Your task to perform on an android device: star an email in the gmail app Image 0: 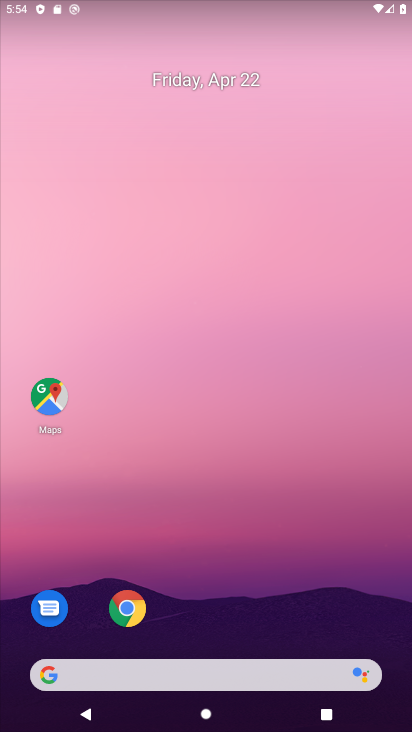
Step 0: click (126, 622)
Your task to perform on an android device: star an email in the gmail app Image 1: 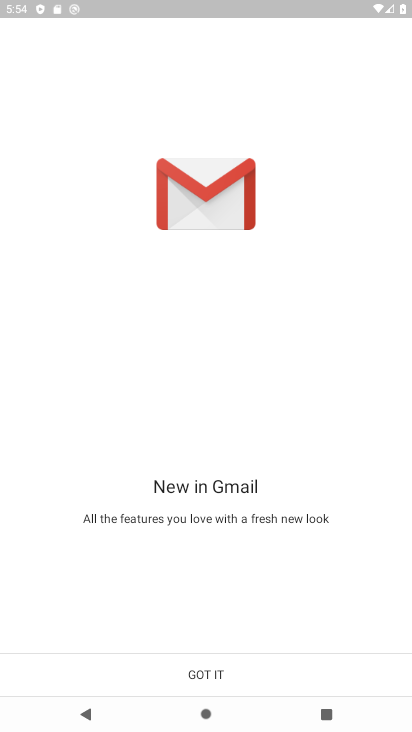
Step 1: press home button
Your task to perform on an android device: star an email in the gmail app Image 2: 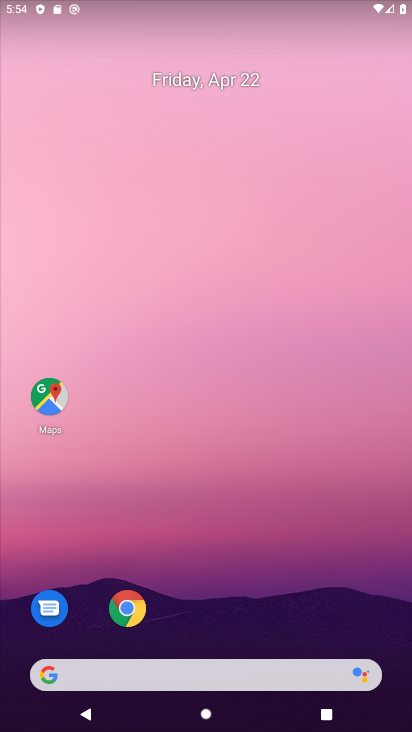
Step 2: click (129, 623)
Your task to perform on an android device: star an email in the gmail app Image 3: 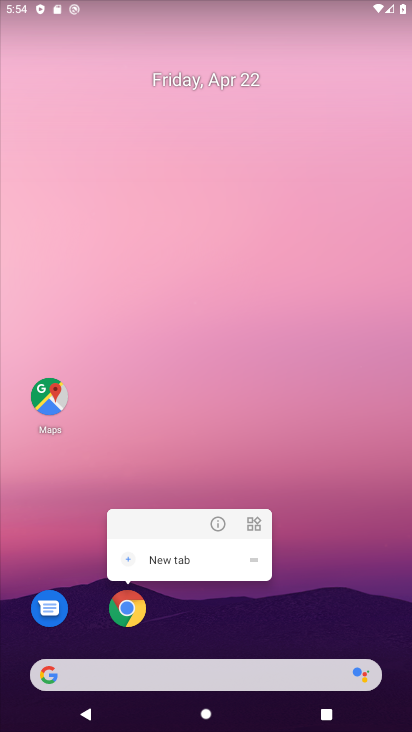
Step 3: click (124, 613)
Your task to perform on an android device: star an email in the gmail app Image 4: 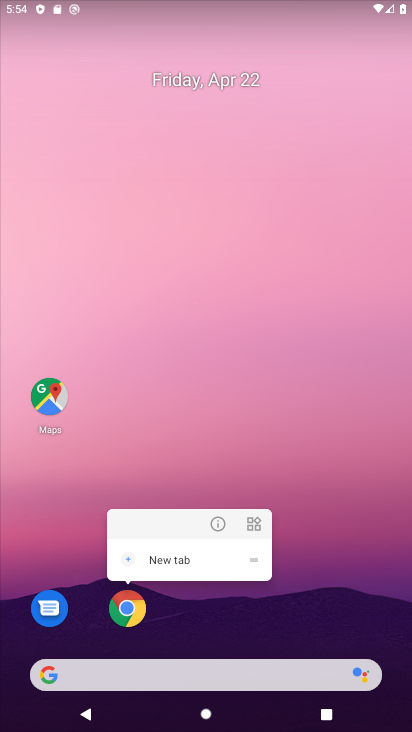
Step 4: click (124, 610)
Your task to perform on an android device: star an email in the gmail app Image 5: 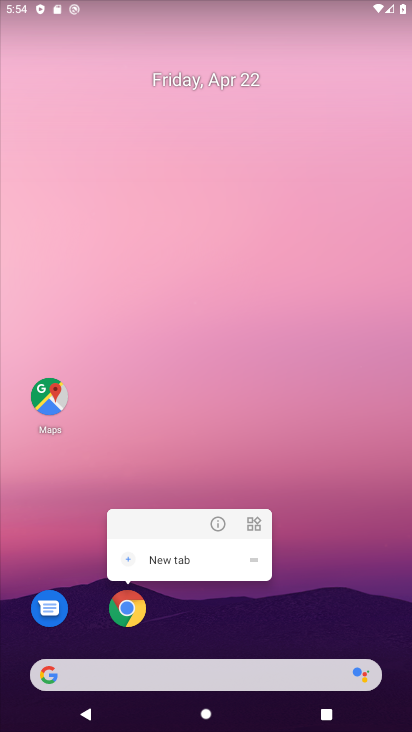
Step 5: click (127, 606)
Your task to perform on an android device: star an email in the gmail app Image 6: 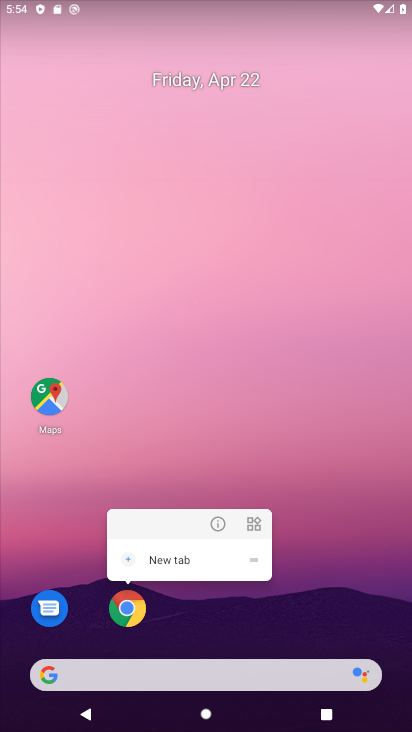
Step 6: click (127, 606)
Your task to perform on an android device: star an email in the gmail app Image 7: 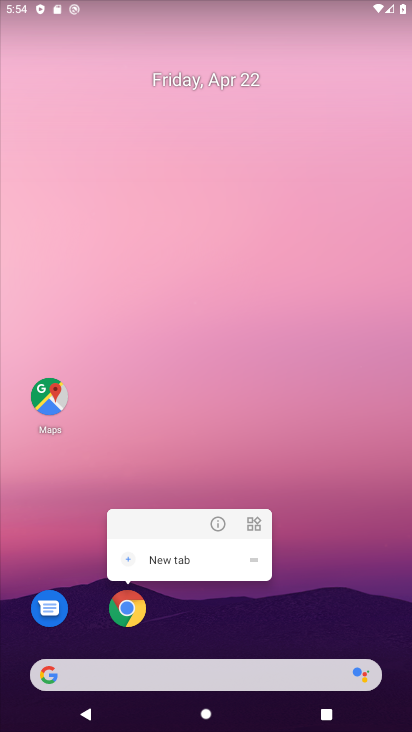
Step 7: click (131, 607)
Your task to perform on an android device: star an email in the gmail app Image 8: 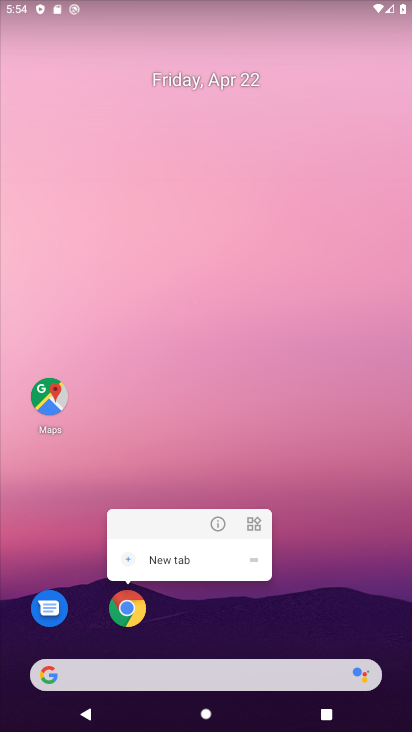
Step 8: click (132, 599)
Your task to perform on an android device: star an email in the gmail app Image 9: 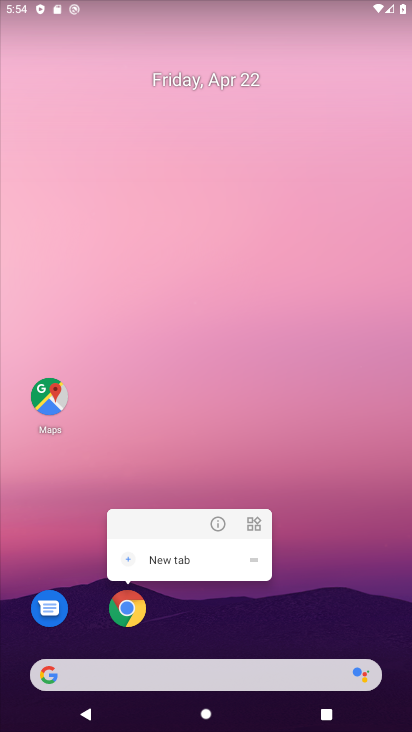
Step 9: click (120, 612)
Your task to perform on an android device: star an email in the gmail app Image 10: 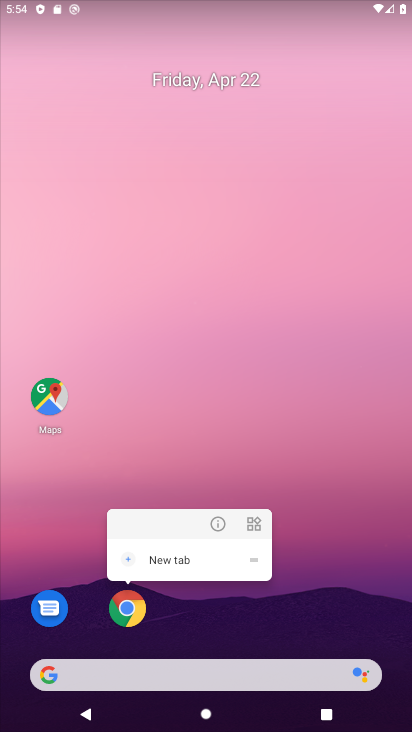
Step 10: click (124, 616)
Your task to perform on an android device: star an email in the gmail app Image 11: 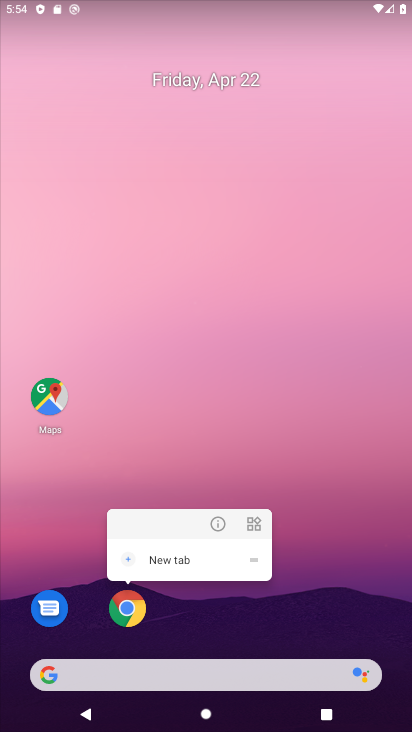
Step 11: click (132, 609)
Your task to perform on an android device: star an email in the gmail app Image 12: 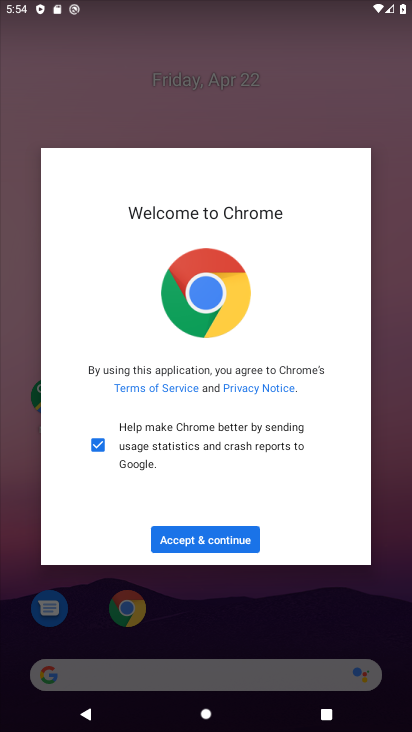
Step 12: click (193, 546)
Your task to perform on an android device: star an email in the gmail app Image 13: 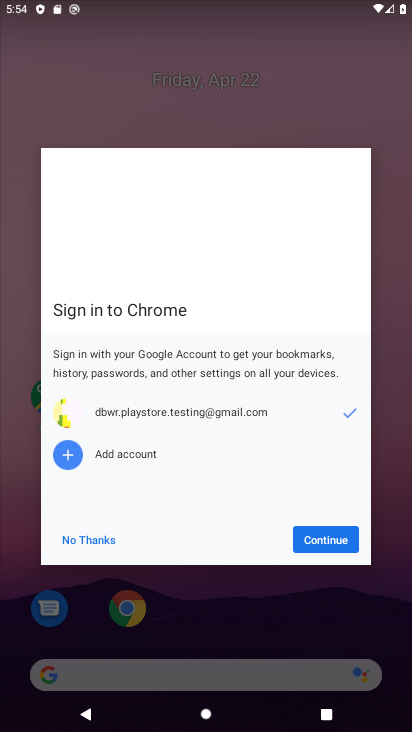
Step 13: click (302, 536)
Your task to perform on an android device: star an email in the gmail app Image 14: 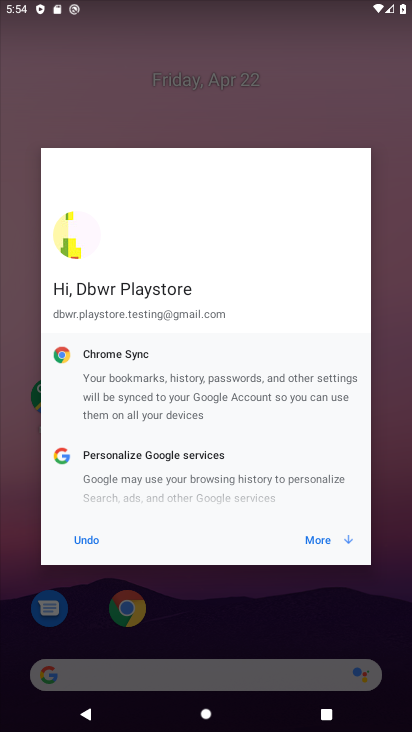
Step 14: click (312, 538)
Your task to perform on an android device: star an email in the gmail app Image 15: 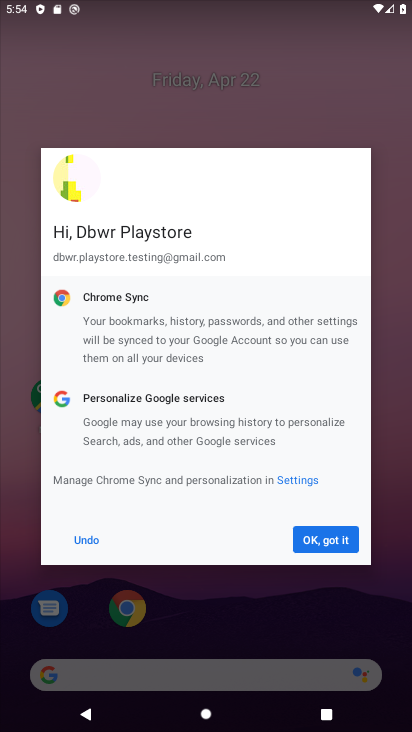
Step 15: click (326, 549)
Your task to perform on an android device: star an email in the gmail app Image 16: 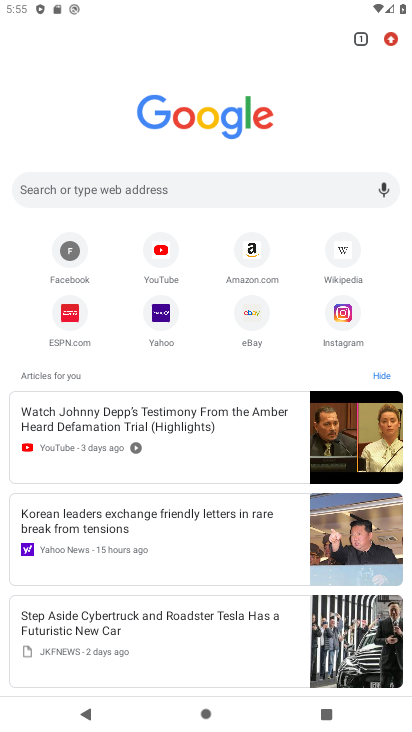
Step 16: press home button
Your task to perform on an android device: star an email in the gmail app Image 17: 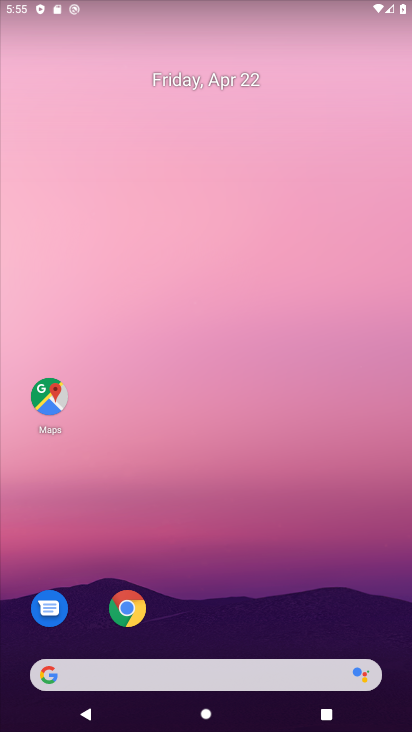
Step 17: drag from (253, 634) to (136, 245)
Your task to perform on an android device: star an email in the gmail app Image 18: 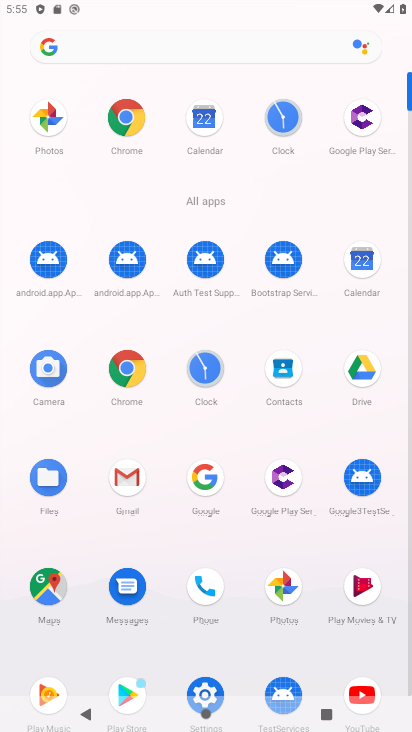
Step 18: click (119, 474)
Your task to perform on an android device: star an email in the gmail app Image 19: 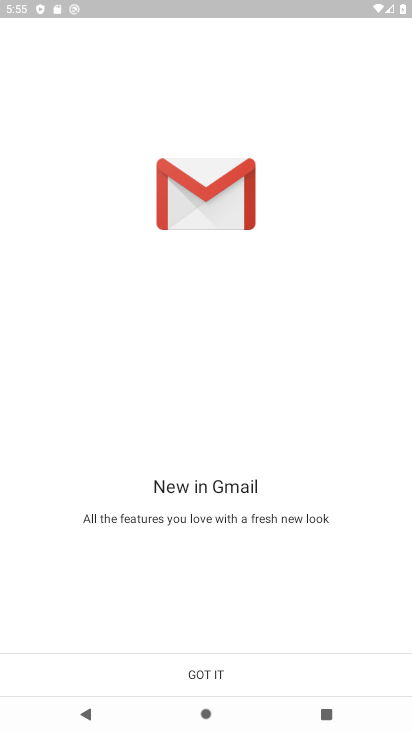
Step 19: click (234, 686)
Your task to perform on an android device: star an email in the gmail app Image 20: 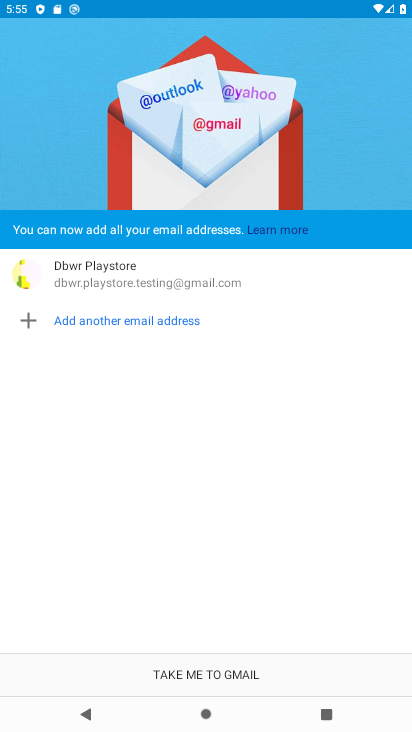
Step 20: click (224, 680)
Your task to perform on an android device: star an email in the gmail app Image 21: 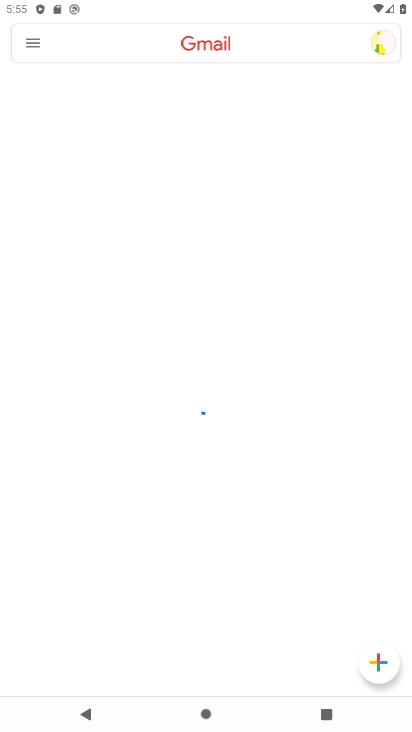
Step 21: click (31, 45)
Your task to perform on an android device: star an email in the gmail app Image 22: 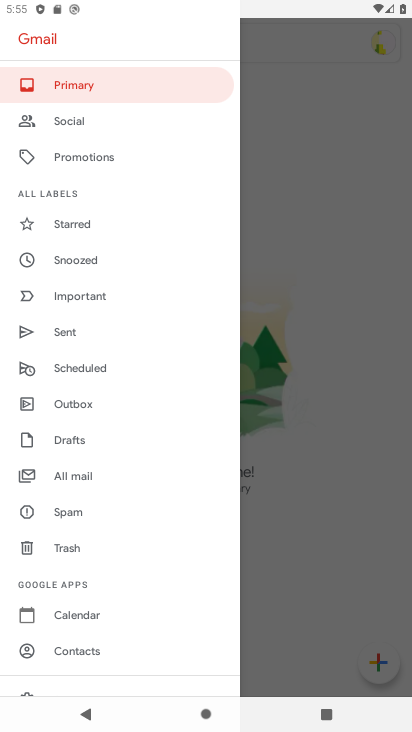
Step 22: click (76, 475)
Your task to perform on an android device: star an email in the gmail app Image 23: 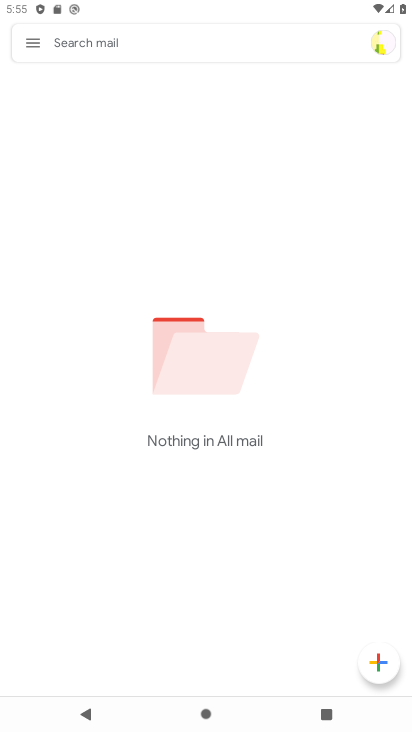
Step 23: task complete